Your task to perform on an android device: change text size in settings app Image 0: 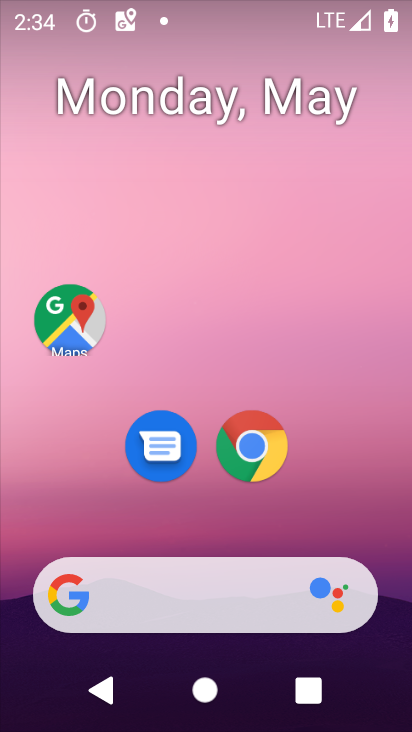
Step 0: drag from (182, 575) to (203, 66)
Your task to perform on an android device: change text size in settings app Image 1: 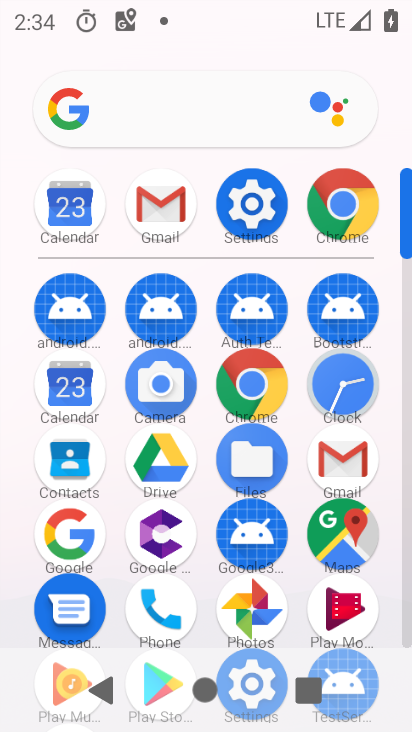
Step 1: click (239, 203)
Your task to perform on an android device: change text size in settings app Image 2: 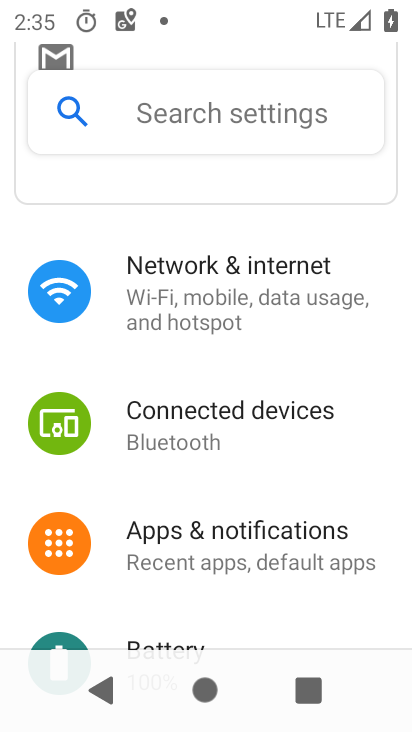
Step 2: drag from (165, 513) to (210, 88)
Your task to perform on an android device: change text size in settings app Image 3: 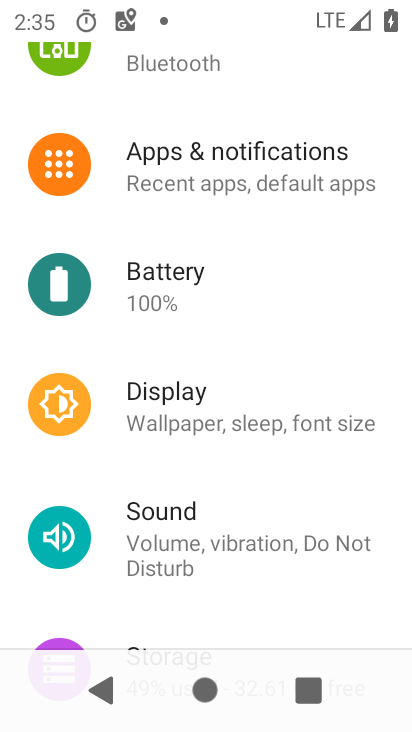
Step 3: click (183, 393)
Your task to perform on an android device: change text size in settings app Image 4: 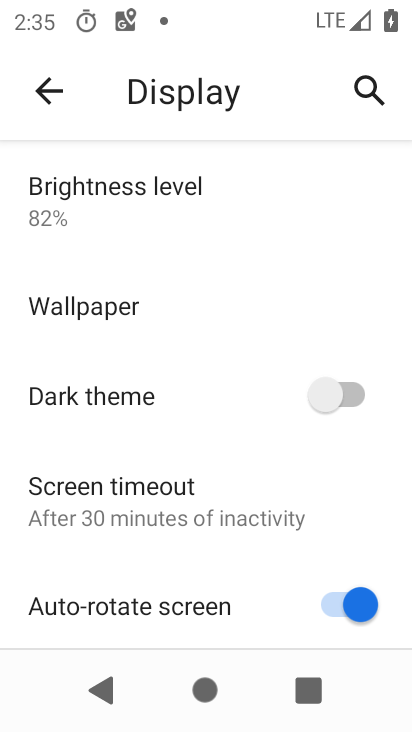
Step 4: drag from (157, 510) to (87, 13)
Your task to perform on an android device: change text size in settings app Image 5: 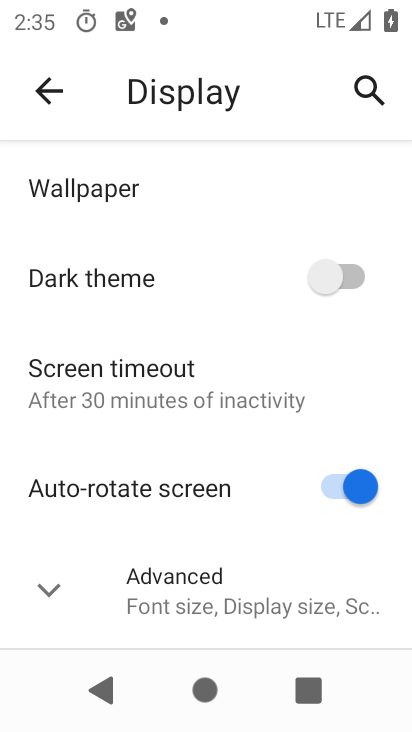
Step 5: click (170, 571)
Your task to perform on an android device: change text size in settings app Image 6: 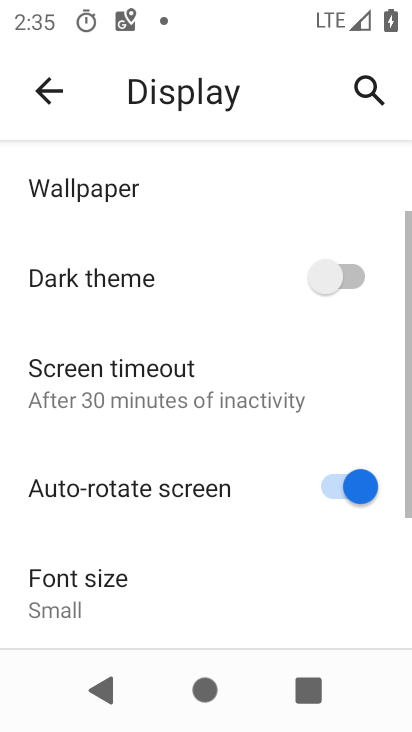
Step 6: click (147, 603)
Your task to perform on an android device: change text size in settings app Image 7: 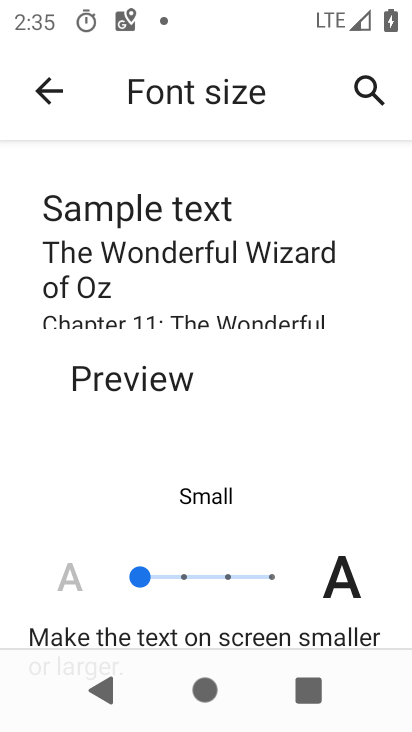
Step 7: click (177, 579)
Your task to perform on an android device: change text size in settings app Image 8: 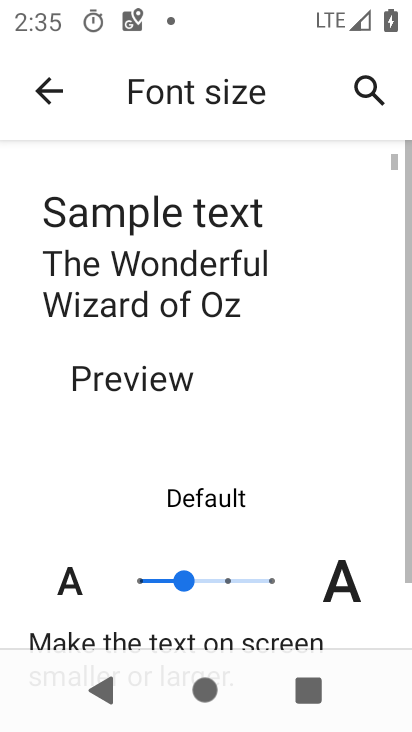
Step 8: task complete